Your task to perform on an android device: toggle data saver in the chrome app Image 0: 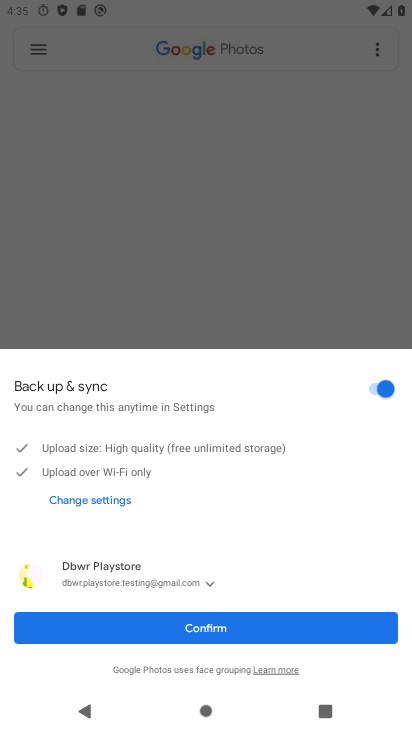
Step 0: press home button
Your task to perform on an android device: toggle data saver in the chrome app Image 1: 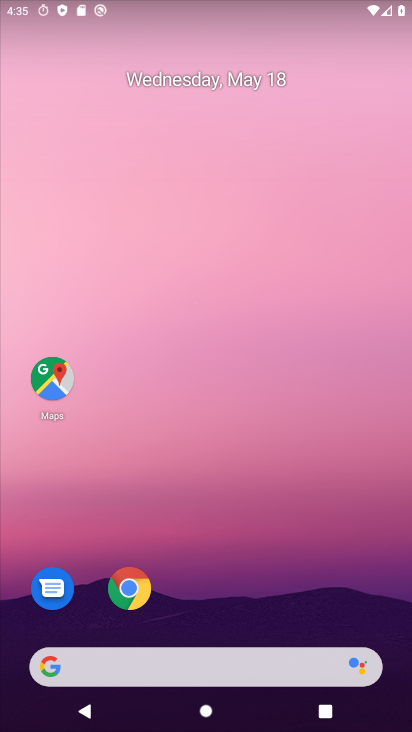
Step 1: click (134, 583)
Your task to perform on an android device: toggle data saver in the chrome app Image 2: 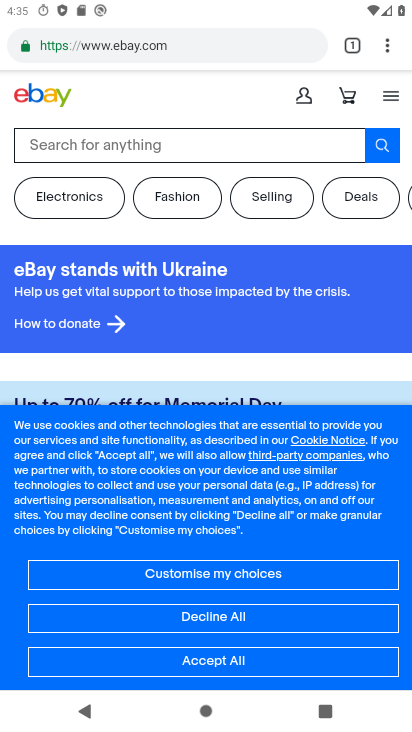
Step 2: drag from (383, 42) to (238, 551)
Your task to perform on an android device: toggle data saver in the chrome app Image 3: 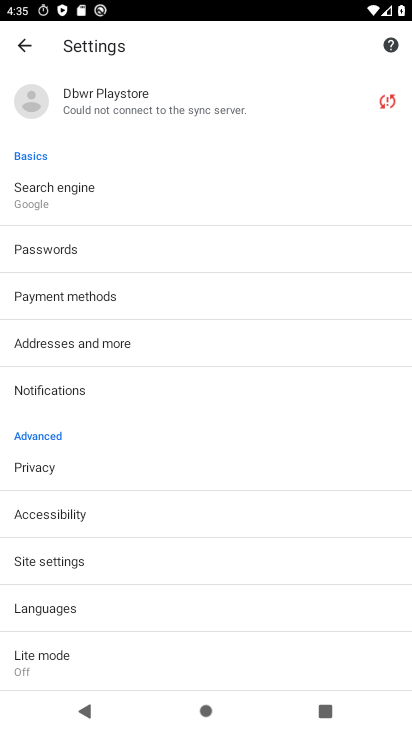
Step 3: click (22, 655)
Your task to perform on an android device: toggle data saver in the chrome app Image 4: 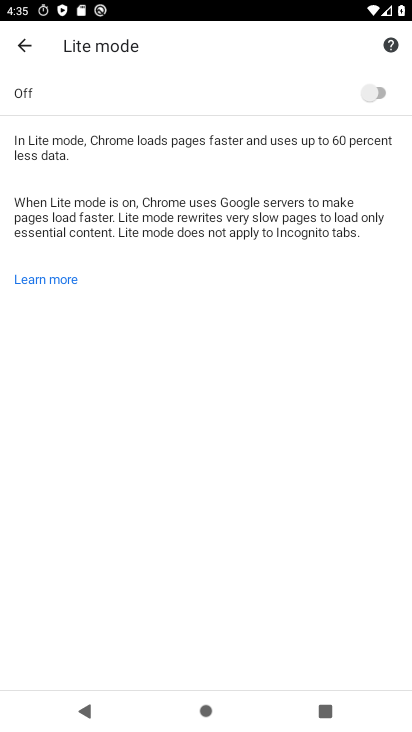
Step 4: click (364, 90)
Your task to perform on an android device: toggle data saver in the chrome app Image 5: 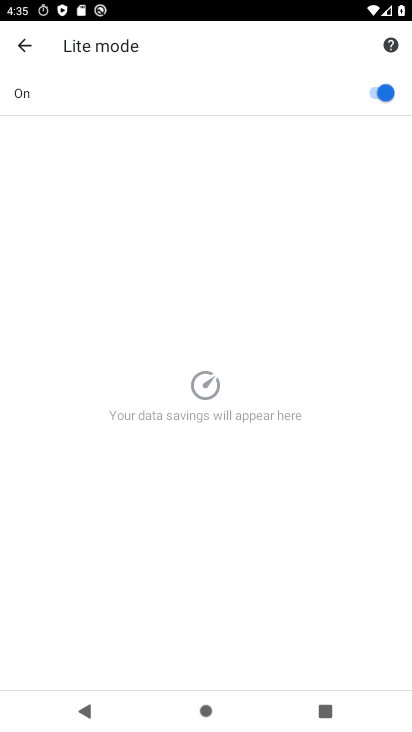
Step 5: task complete